Your task to perform on an android device: What is the recent news? Image 0: 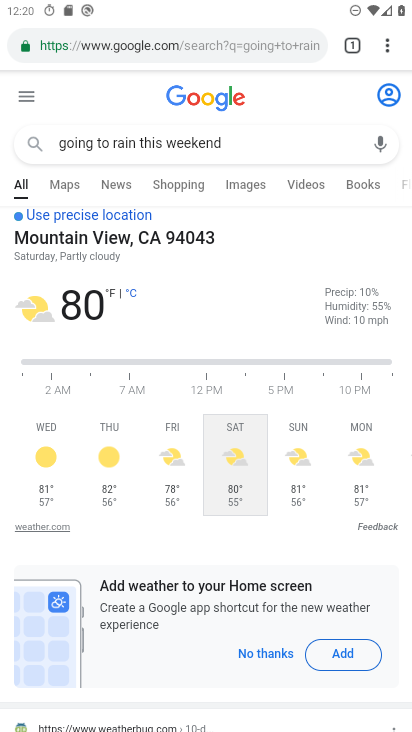
Step 0: click (211, 50)
Your task to perform on an android device: What is the recent news? Image 1: 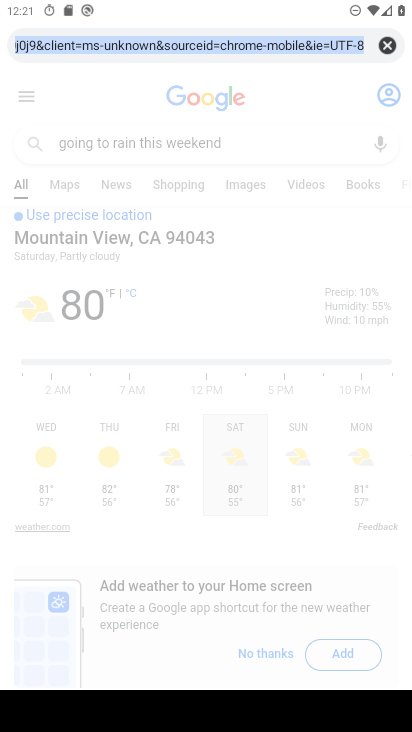
Step 1: type "recent news"
Your task to perform on an android device: What is the recent news? Image 2: 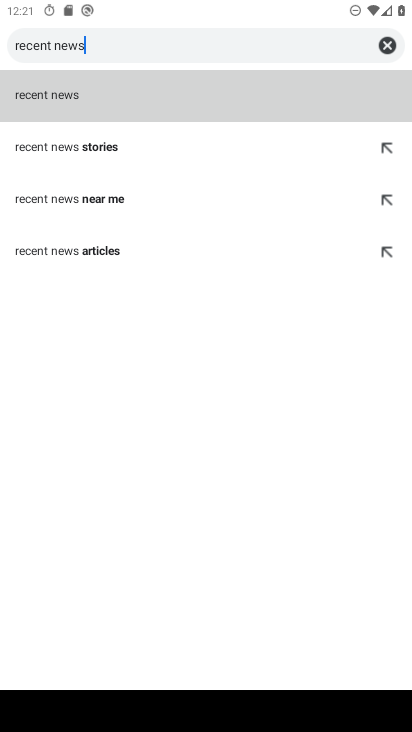
Step 2: click (98, 107)
Your task to perform on an android device: What is the recent news? Image 3: 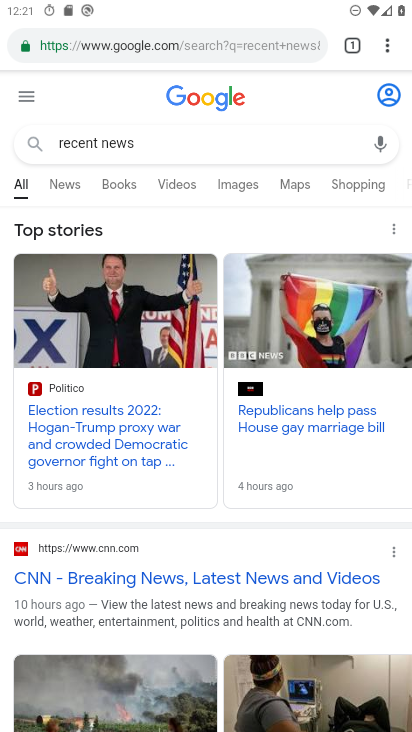
Step 3: task complete